Your task to perform on an android device: turn on data saver in the chrome app Image 0: 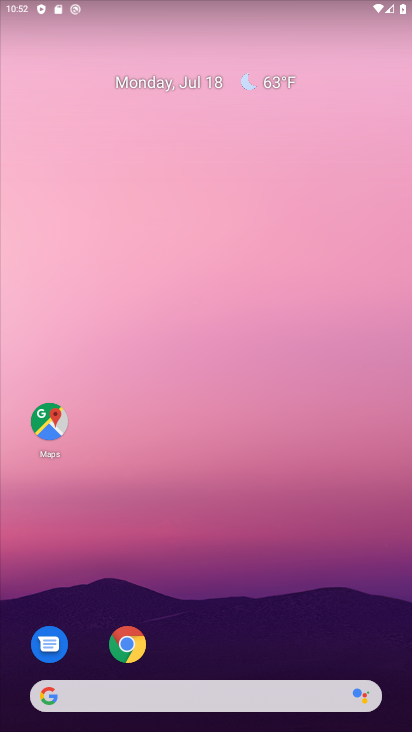
Step 0: click (119, 640)
Your task to perform on an android device: turn on data saver in the chrome app Image 1: 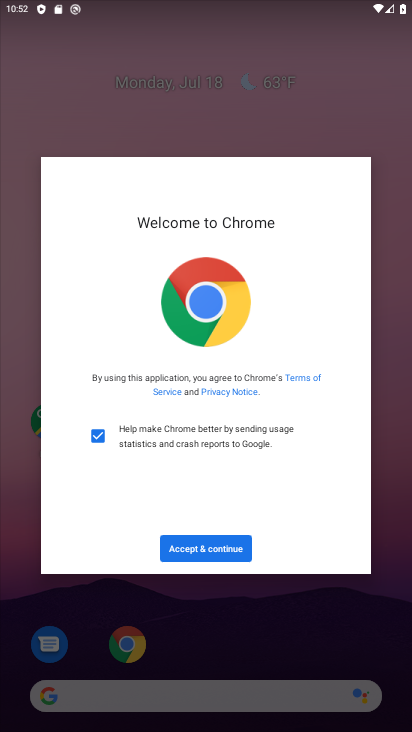
Step 1: click (202, 544)
Your task to perform on an android device: turn on data saver in the chrome app Image 2: 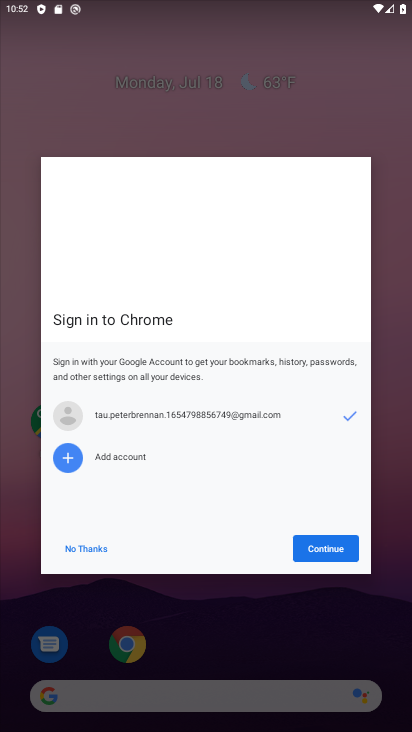
Step 2: click (323, 540)
Your task to perform on an android device: turn on data saver in the chrome app Image 3: 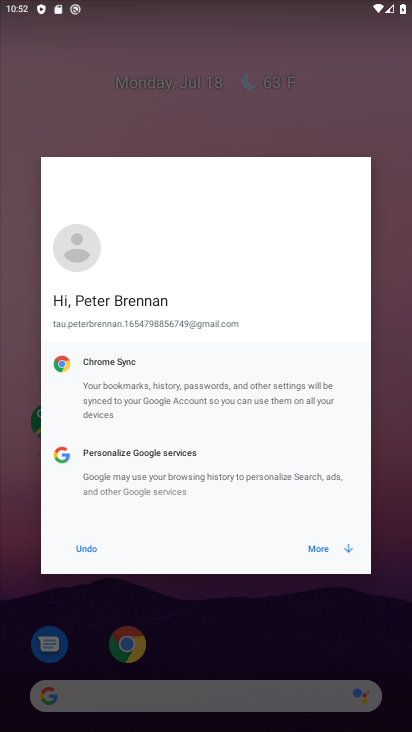
Step 3: click (323, 540)
Your task to perform on an android device: turn on data saver in the chrome app Image 4: 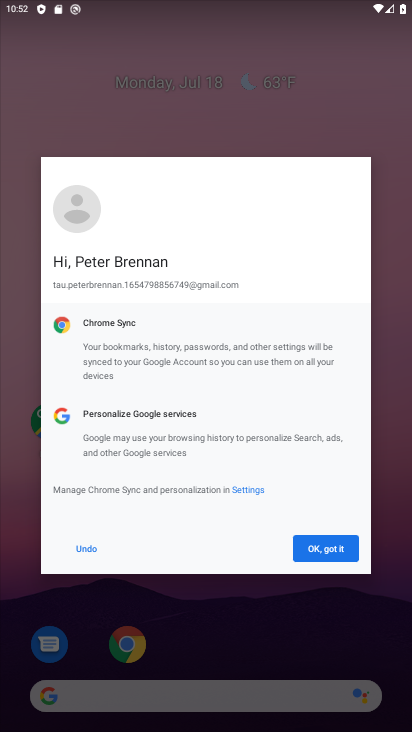
Step 4: click (323, 540)
Your task to perform on an android device: turn on data saver in the chrome app Image 5: 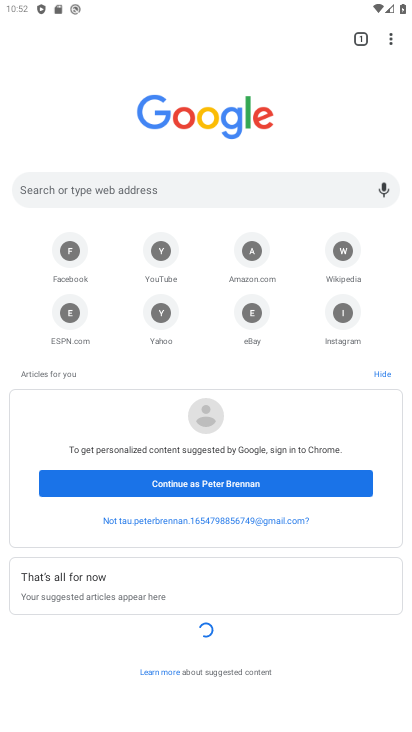
Step 5: click (391, 43)
Your task to perform on an android device: turn on data saver in the chrome app Image 6: 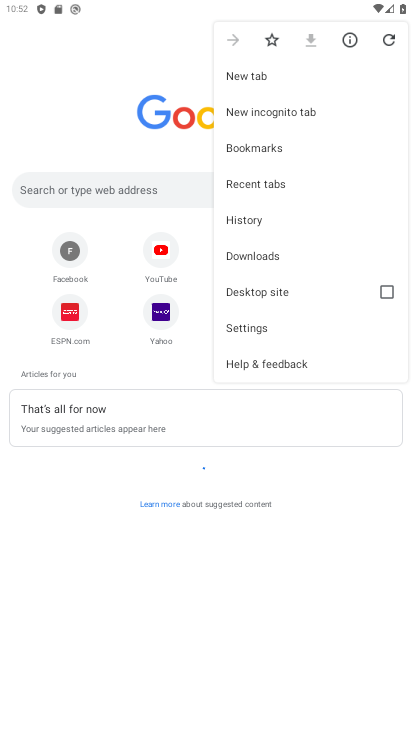
Step 6: click (251, 329)
Your task to perform on an android device: turn on data saver in the chrome app Image 7: 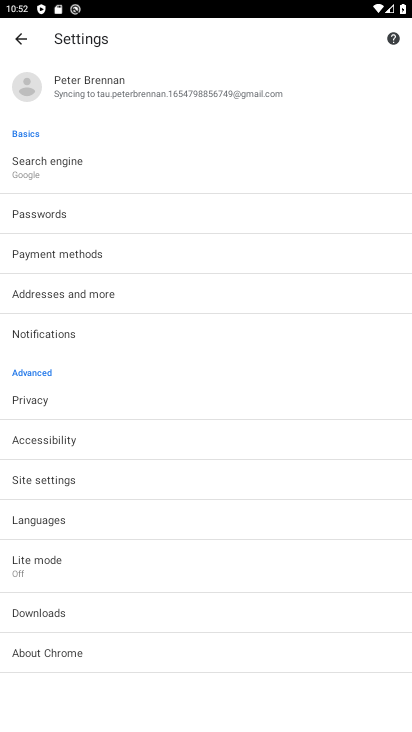
Step 7: click (100, 561)
Your task to perform on an android device: turn on data saver in the chrome app Image 8: 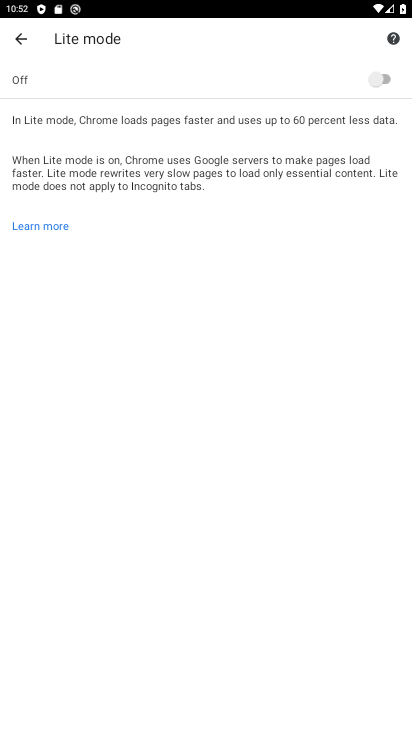
Step 8: click (391, 80)
Your task to perform on an android device: turn on data saver in the chrome app Image 9: 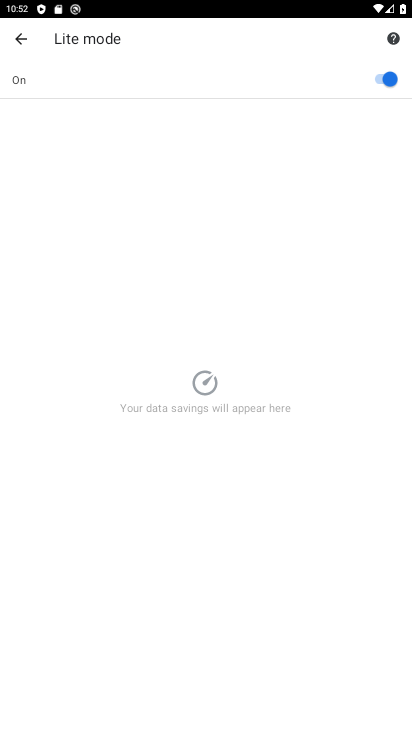
Step 9: task complete